Your task to perform on an android device: Open ESPN.com Image 0: 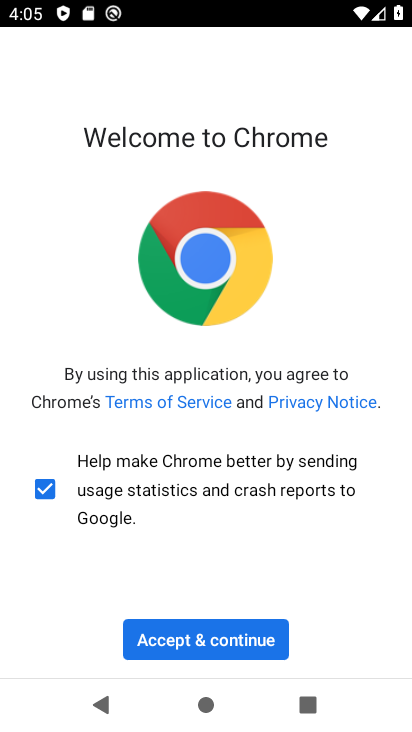
Step 0: press home button
Your task to perform on an android device: Open ESPN.com Image 1: 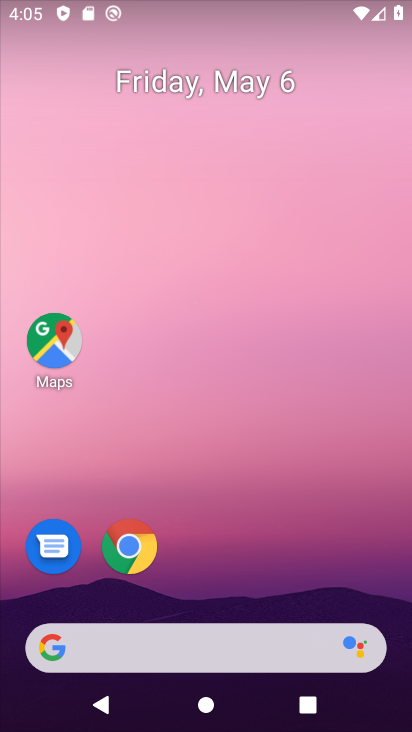
Step 1: click (144, 554)
Your task to perform on an android device: Open ESPN.com Image 2: 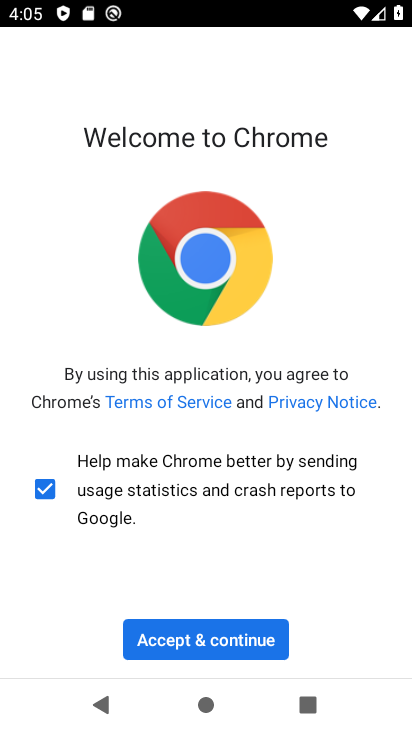
Step 2: click (251, 638)
Your task to perform on an android device: Open ESPN.com Image 3: 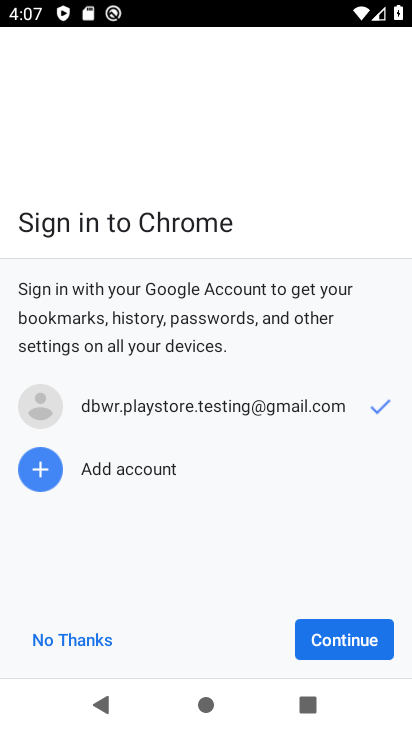
Step 3: click (306, 655)
Your task to perform on an android device: Open ESPN.com Image 4: 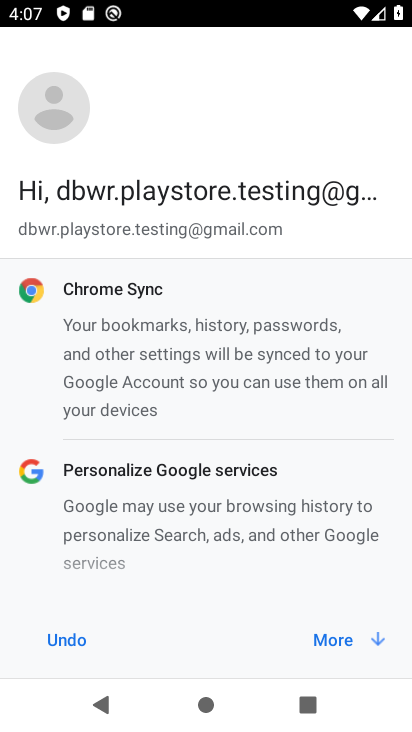
Step 4: click (322, 650)
Your task to perform on an android device: Open ESPN.com Image 5: 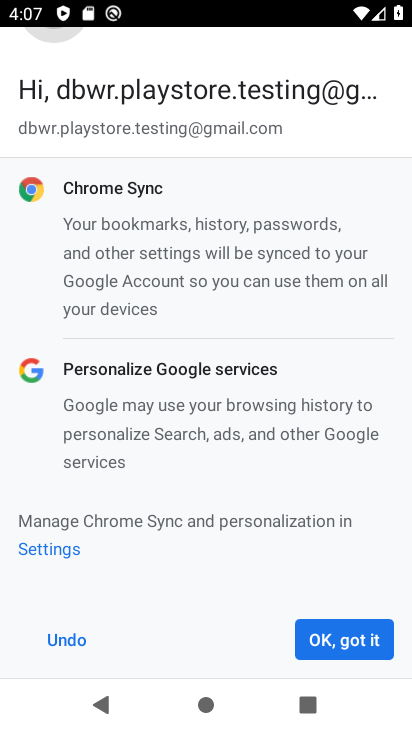
Step 5: click (328, 638)
Your task to perform on an android device: Open ESPN.com Image 6: 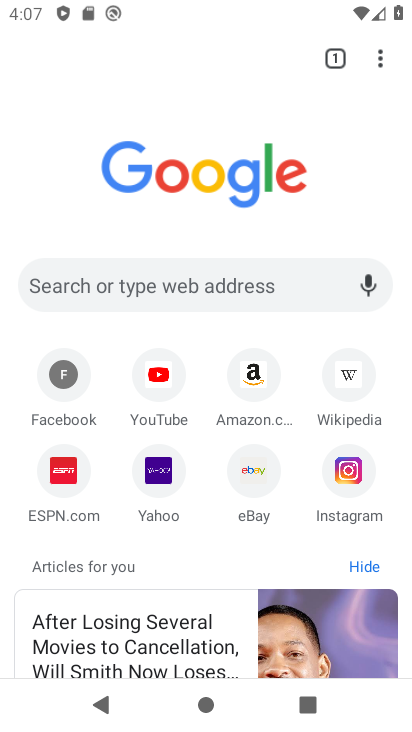
Step 6: click (65, 504)
Your task to perform on an android device: Open ESPN.com Image 7: 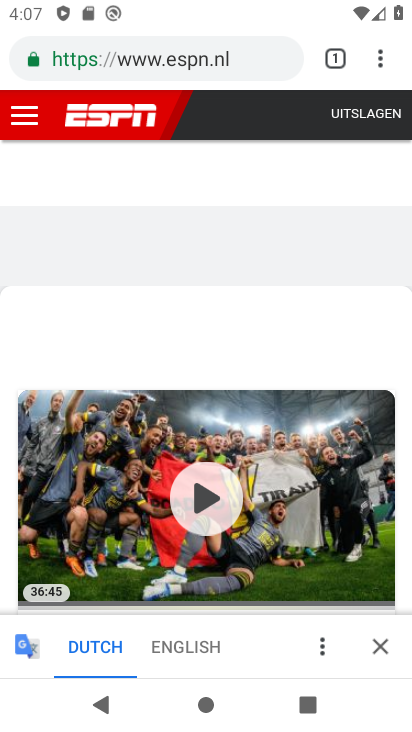
Step 7: task complete